Your task to perform on an android device: What's the weather going to be tomorrow? Image 0: 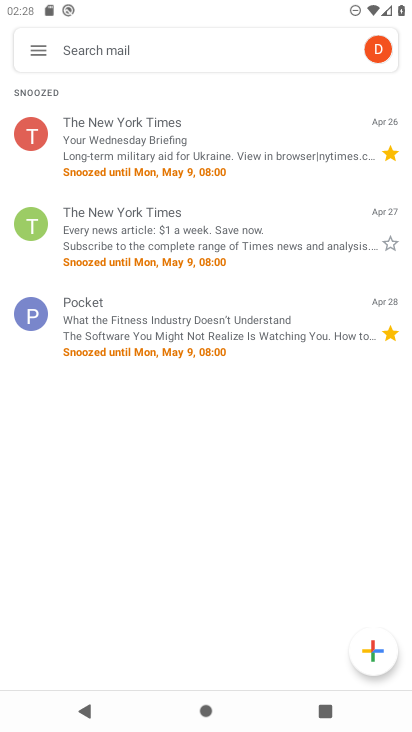
Step 0: click (129, 598)
Your task to perform on an android device: What's the weather going to be tomorrow? Image 1: 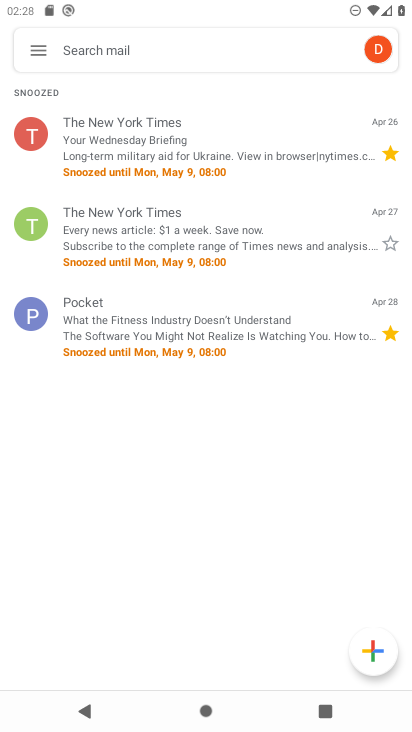
Step 1: press home button
Your task to perform on an android device: What's the weather going to be tomorrow? Image 2: 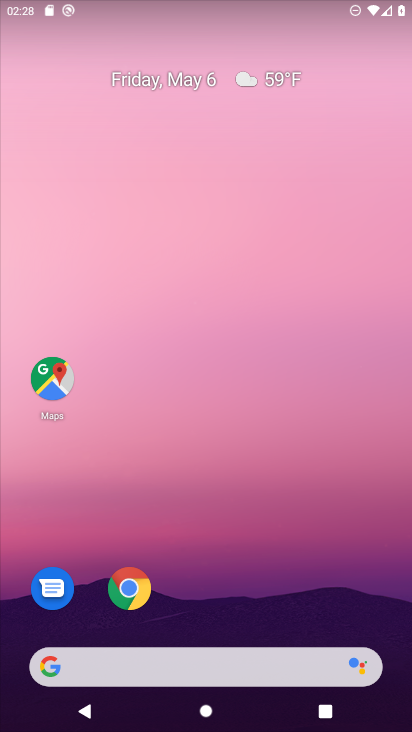
Step 2: click (203, 667)
Your task to perform on an android device: What's the weather going to be tomorrow? Image 3: 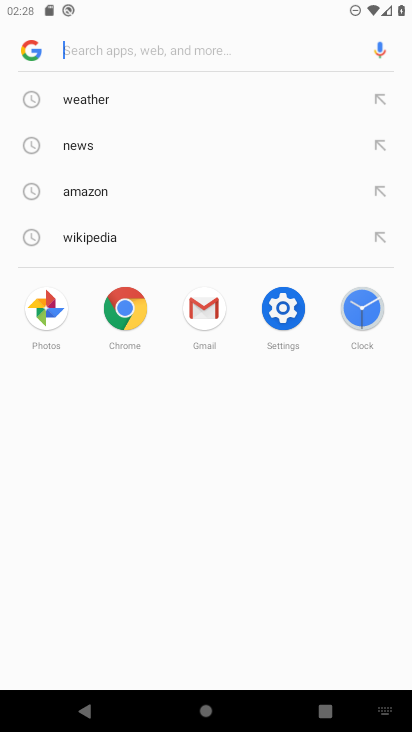
Step 3: click (102, 110)
Your task to perform on an android device: What's the weather going to be tomorrow? Image 4: 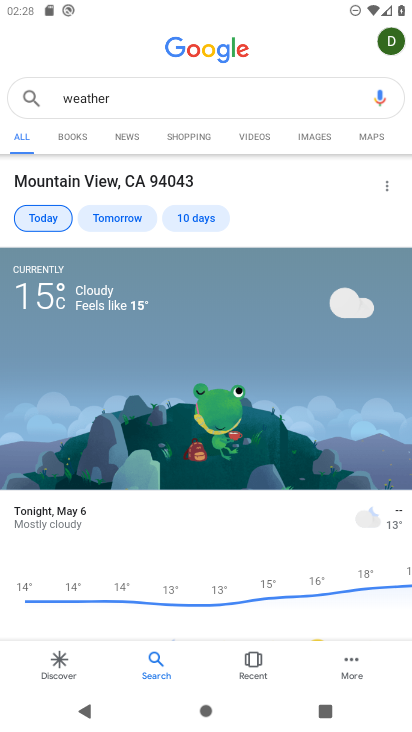
Step 4: task complete